Your task to perform on an android device: How much does a 3 bedroom apartment rent for in Chicago? Image 0: 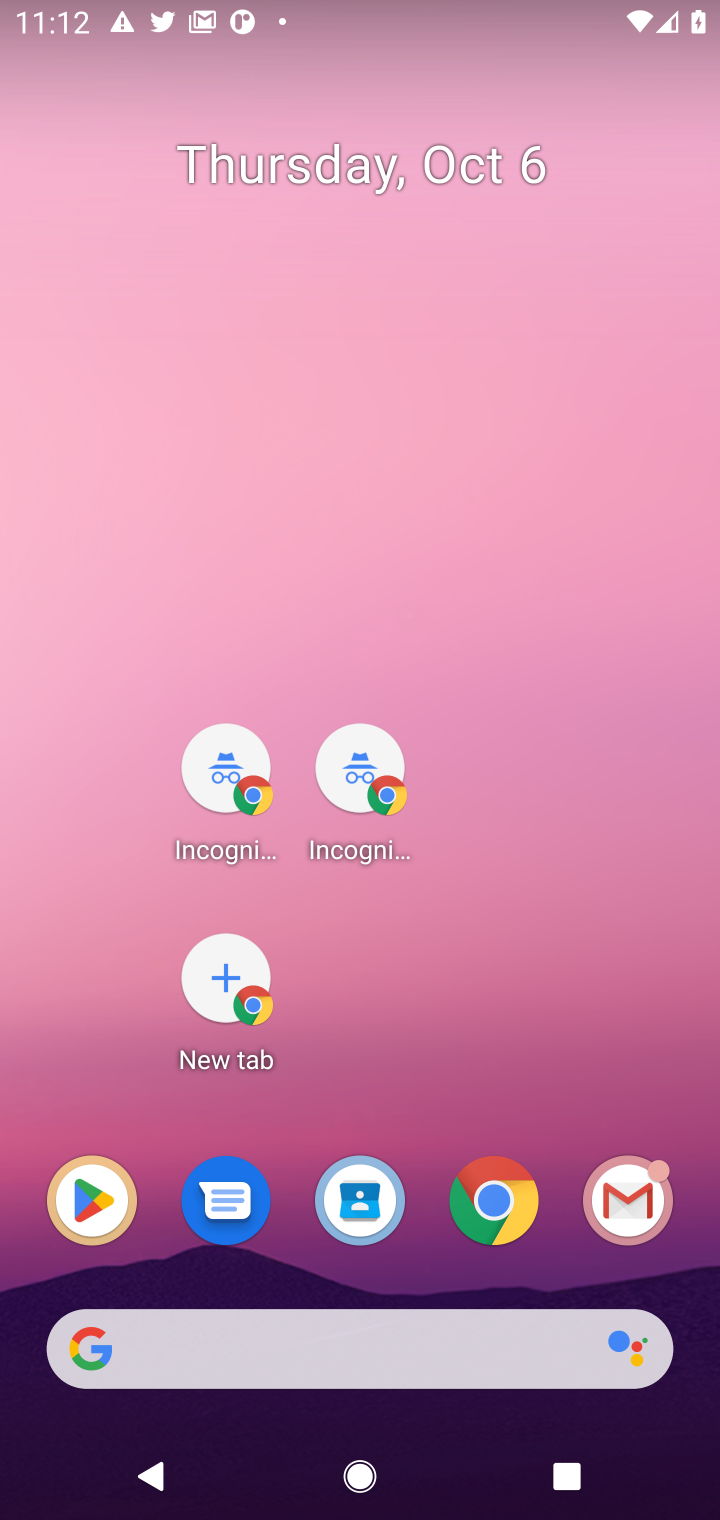
Step 0: press home button
Your task to perform on an android device: How much does a 3 bedroom apartment rent for in Chicago? Image 1: 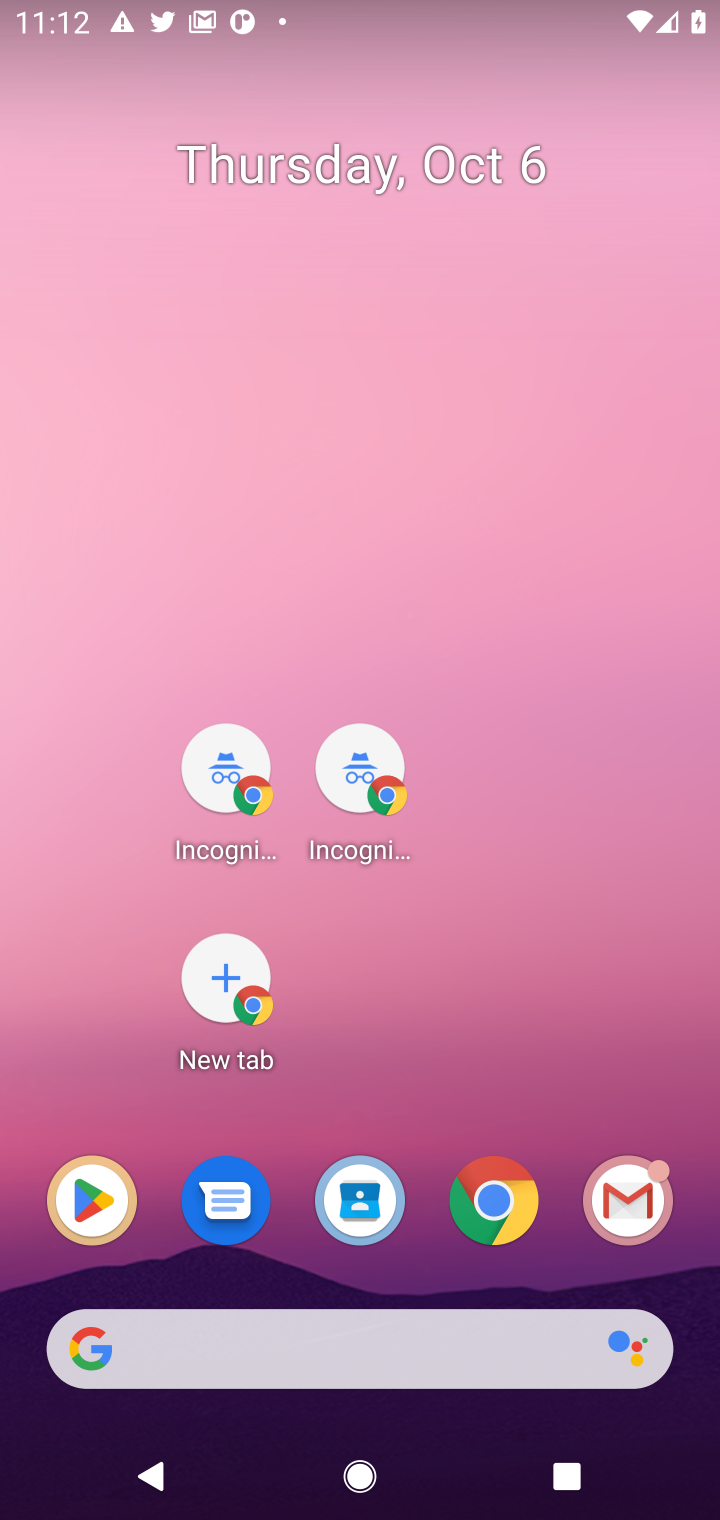
Step 1: click (502, 1193)
Your task to perform on an android device: How much does a 3 bedroom apartment rent for in Chicago? Image 2: 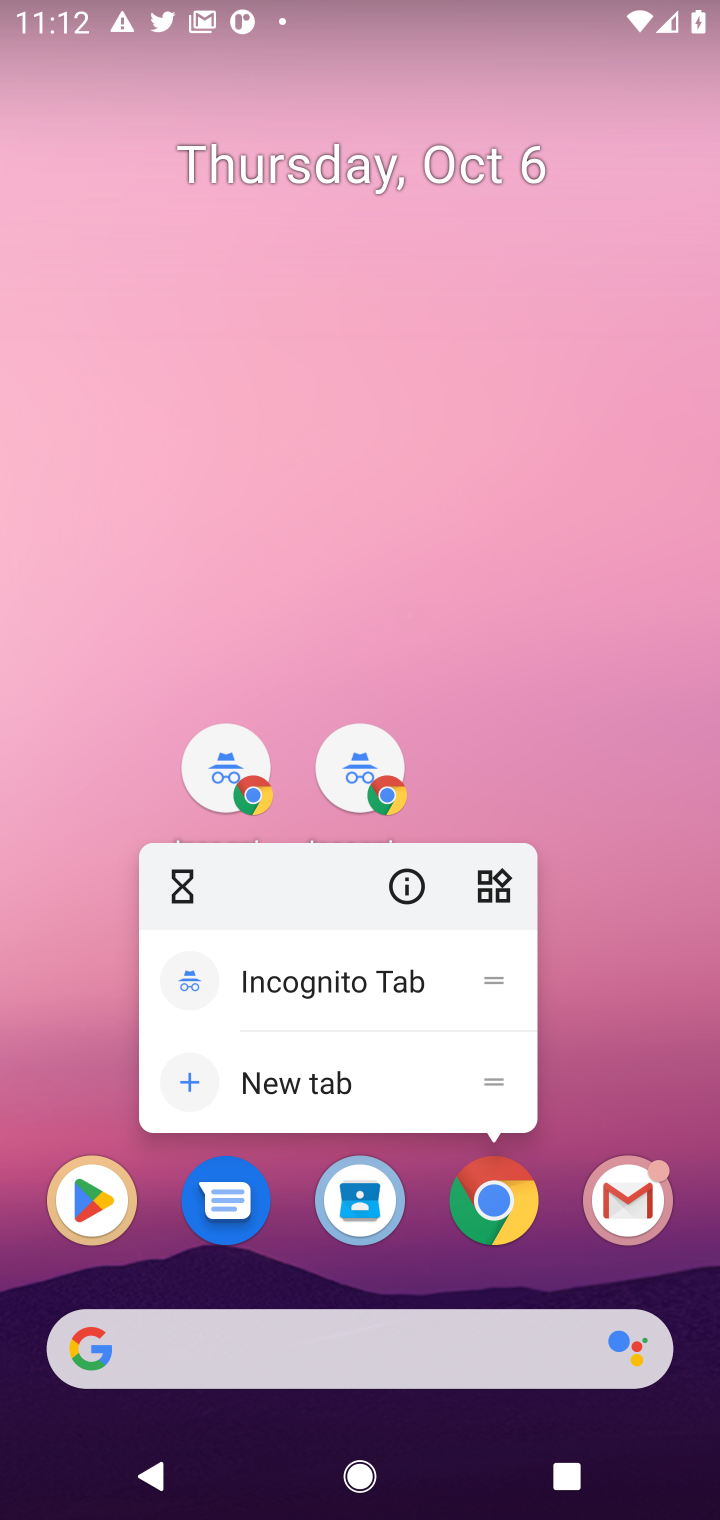
Step 2: press back button
Your task to perform on an android device: How much does a 3 bedroom apartment rent for in Chicago? Image 3: 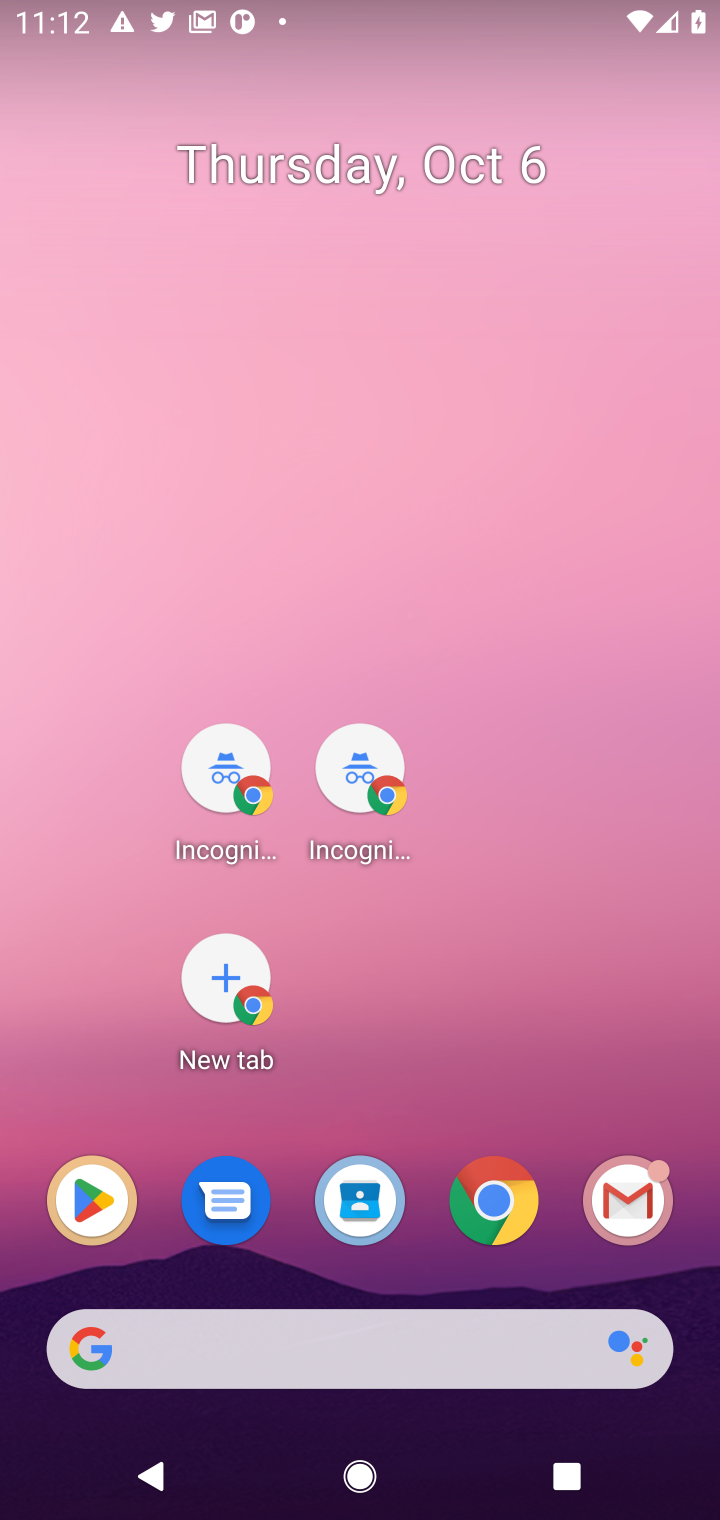
Step 3: click (484, 1201)
Your task to perform on an android device: How much does a 3 bedroom apartment rent for in Chicago? Image 4: 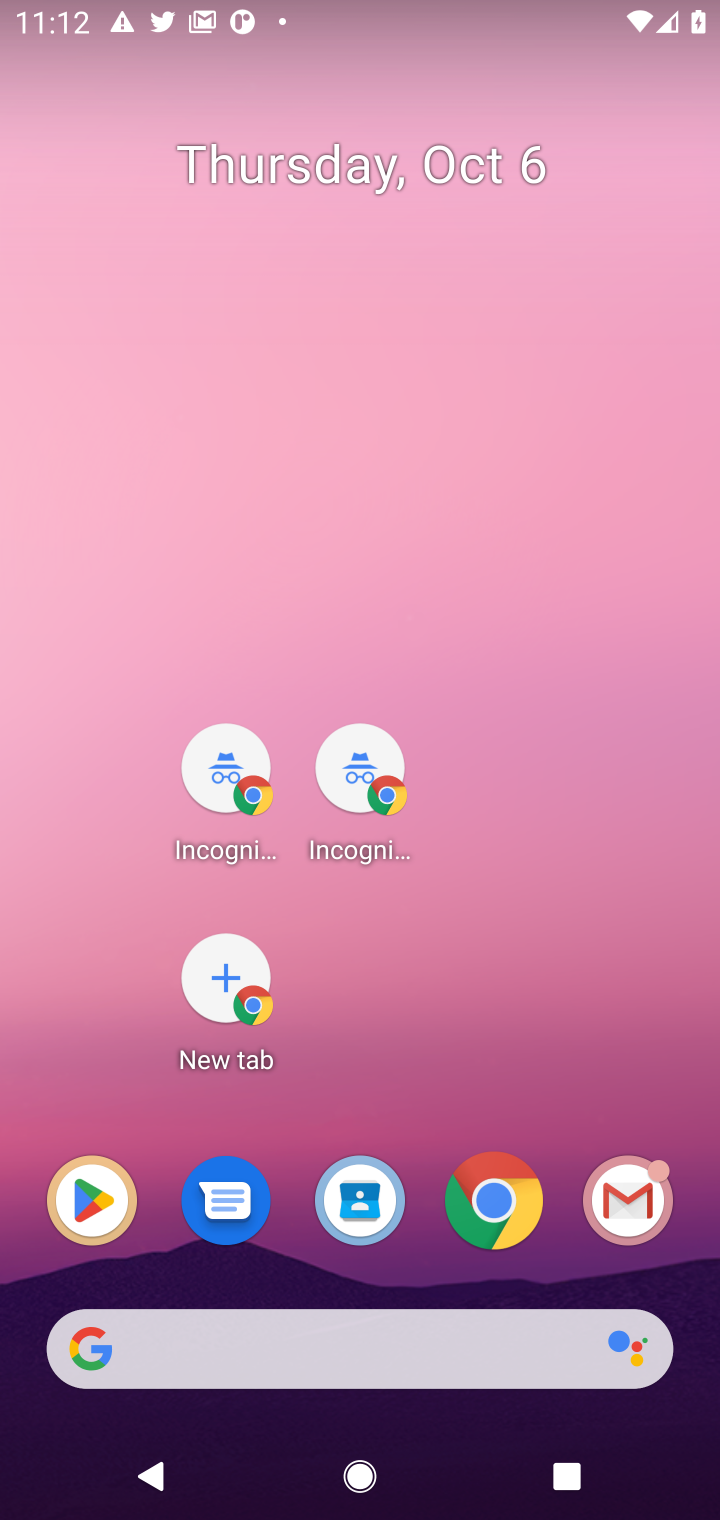
Step 4: click (486, 1197)
Your task to perform on an android device: How much does a 3 bedroom apartment rent for in Chicago? Image 5: 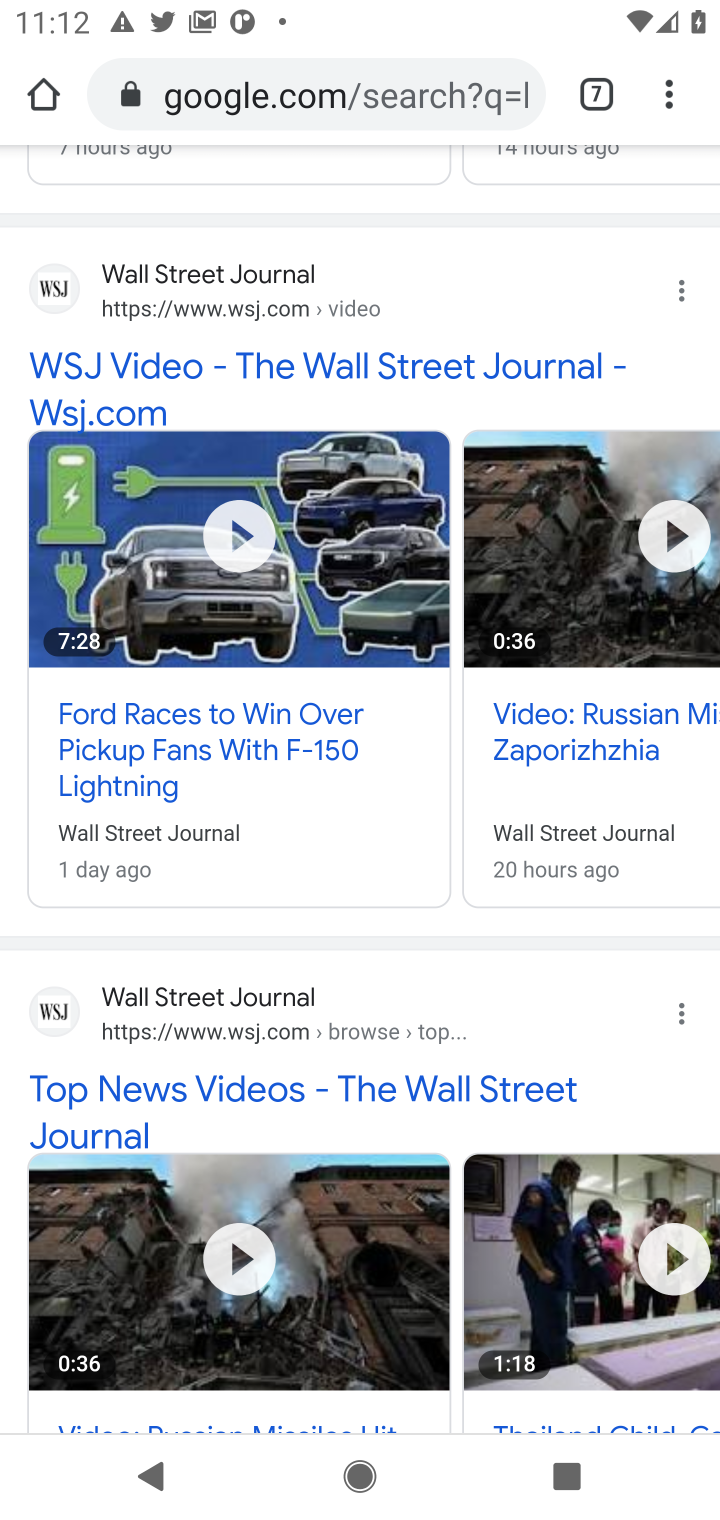
Step 5: click (335, 78)
Your task to perform on an android device: How much does a 3 bedroom apartment rent for in Chicago? Image 6: 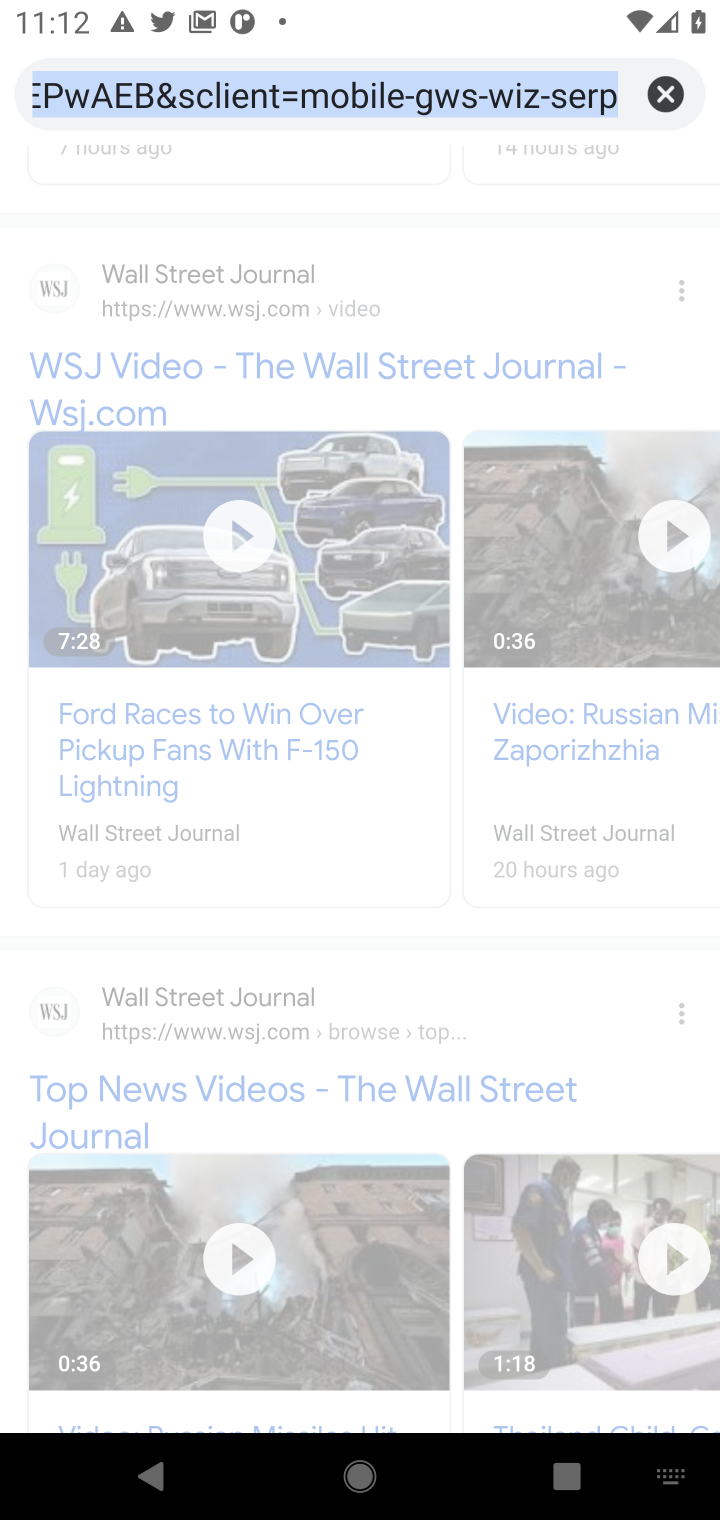
Step 6: click (667, 99)
Your task to perform on an android device: How much does a 3 bedroom apartment rent for in Chicago? Image 7: 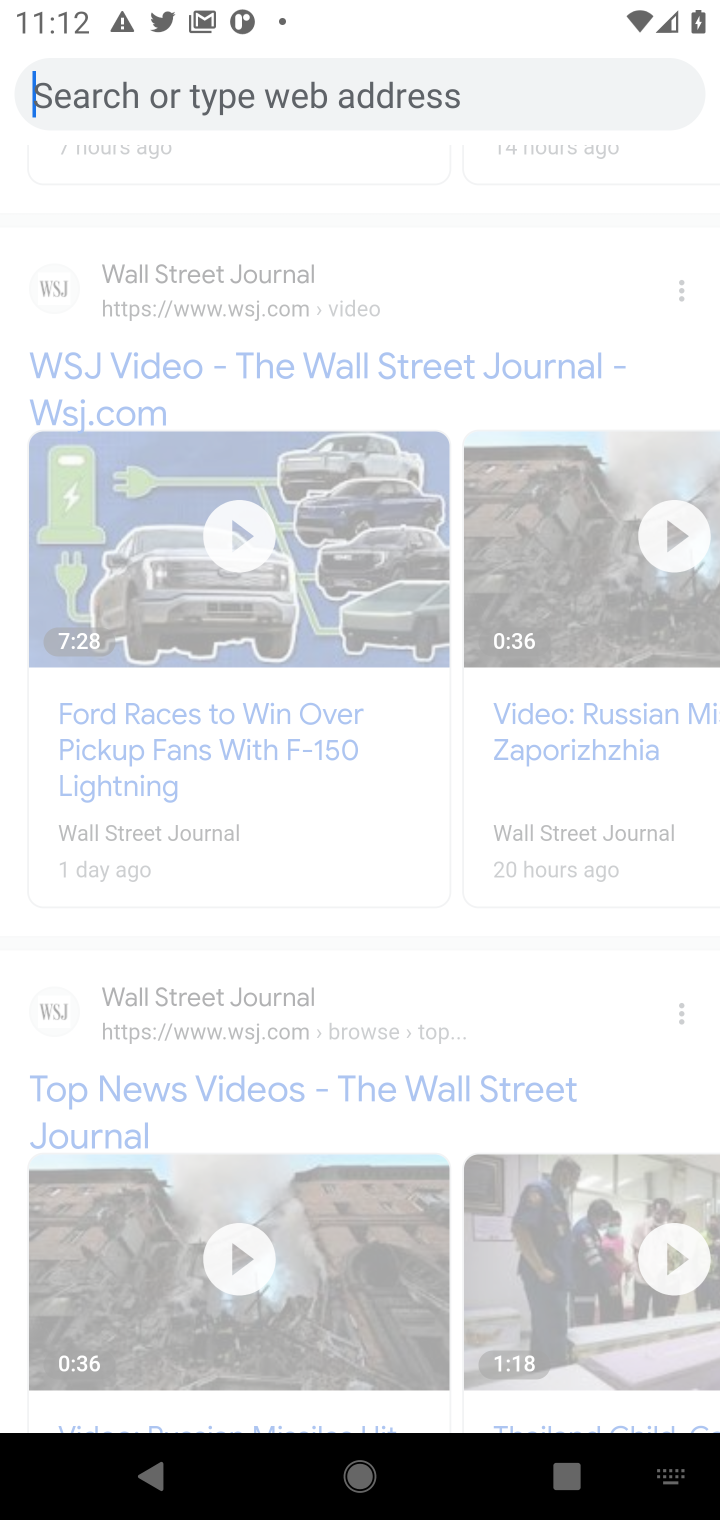
Step 7: type "3 bed room apartment rent in chicago"
Your task to perform on an android device: How much does a 3 bedroom apartment rent for in Chicago? Image 8: 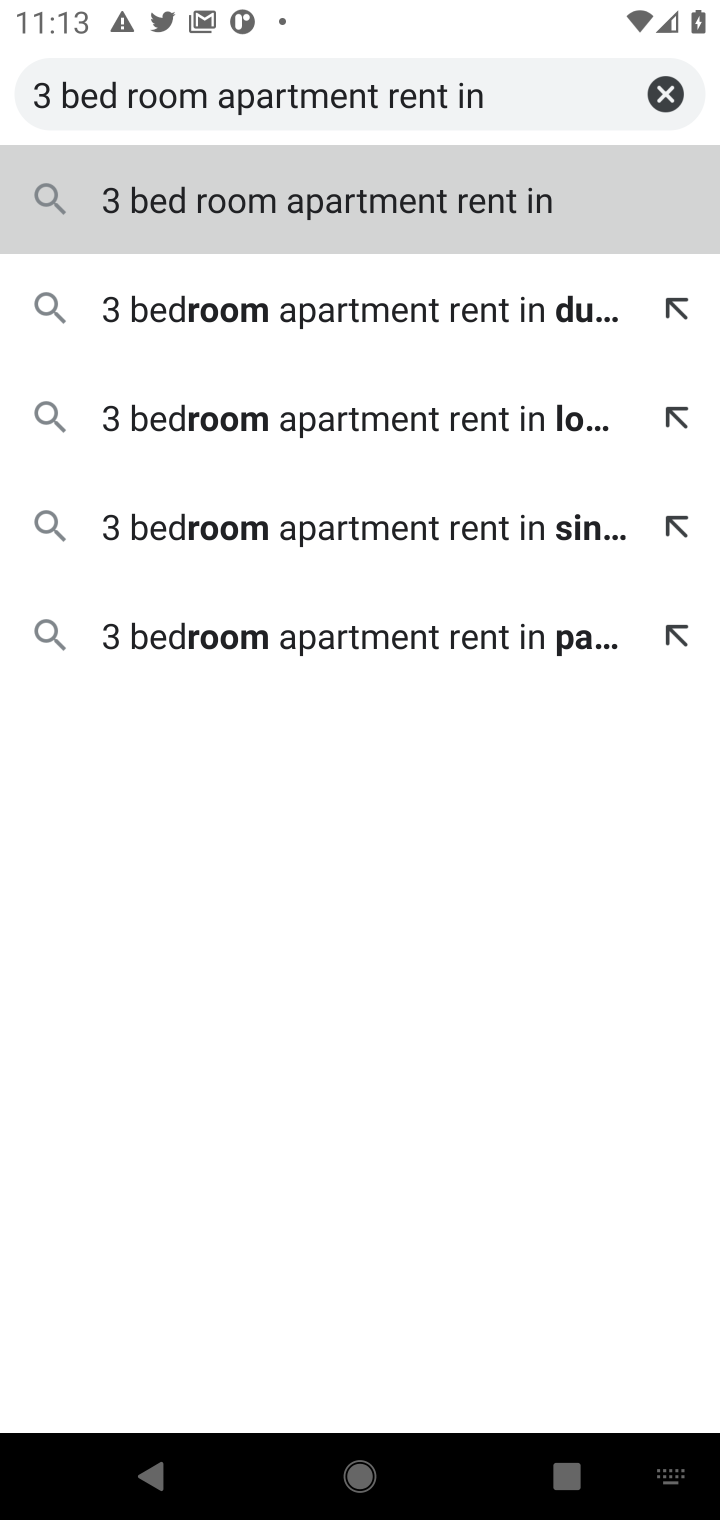
Step 8: click (344, 306)
Your task to perform on an android device: How much does a 3 bedroom apartment rent for in Chicago? Image 9: 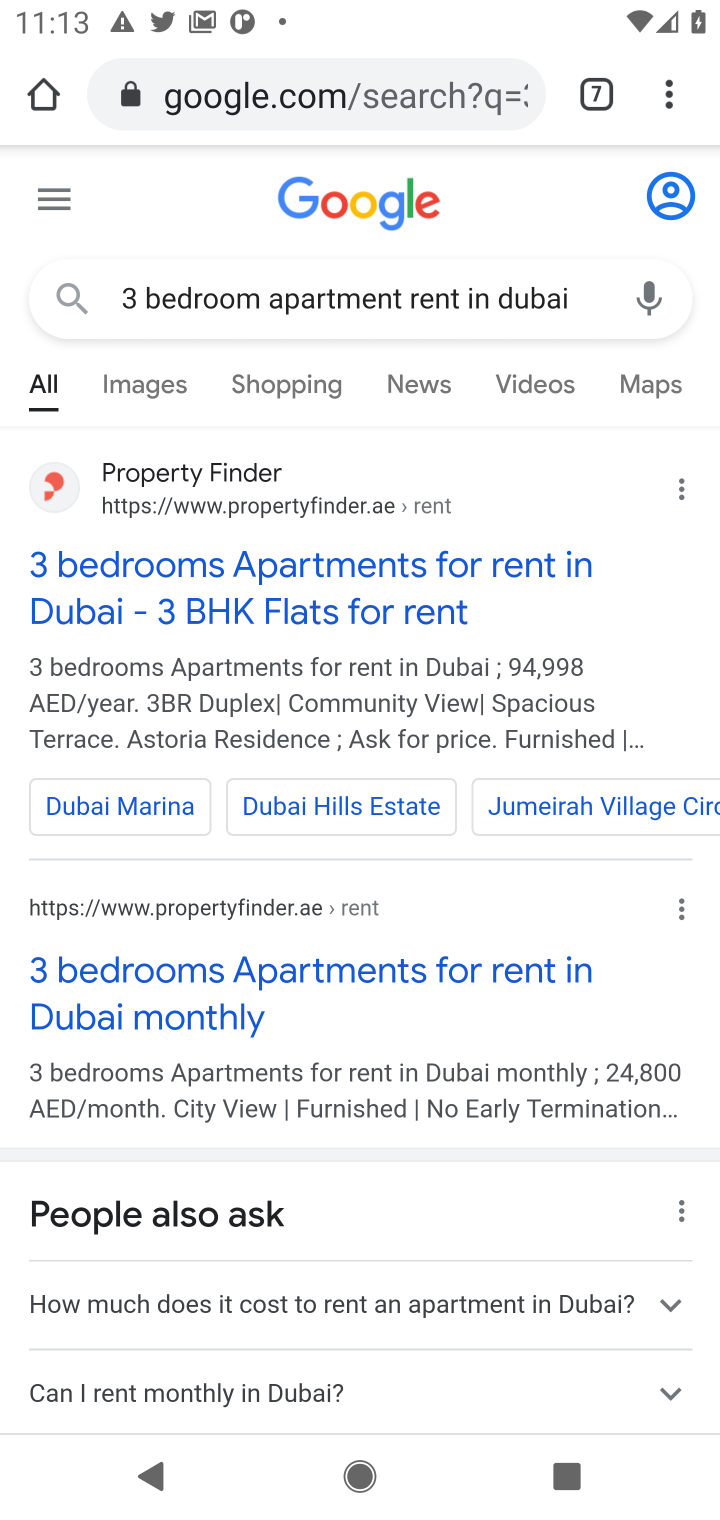
Step 9: drag from (341, 832) to (347, 516)
Your task to perform on an android device: How much does a 3 bedroom apartment rent for in Chicago? Image 10: 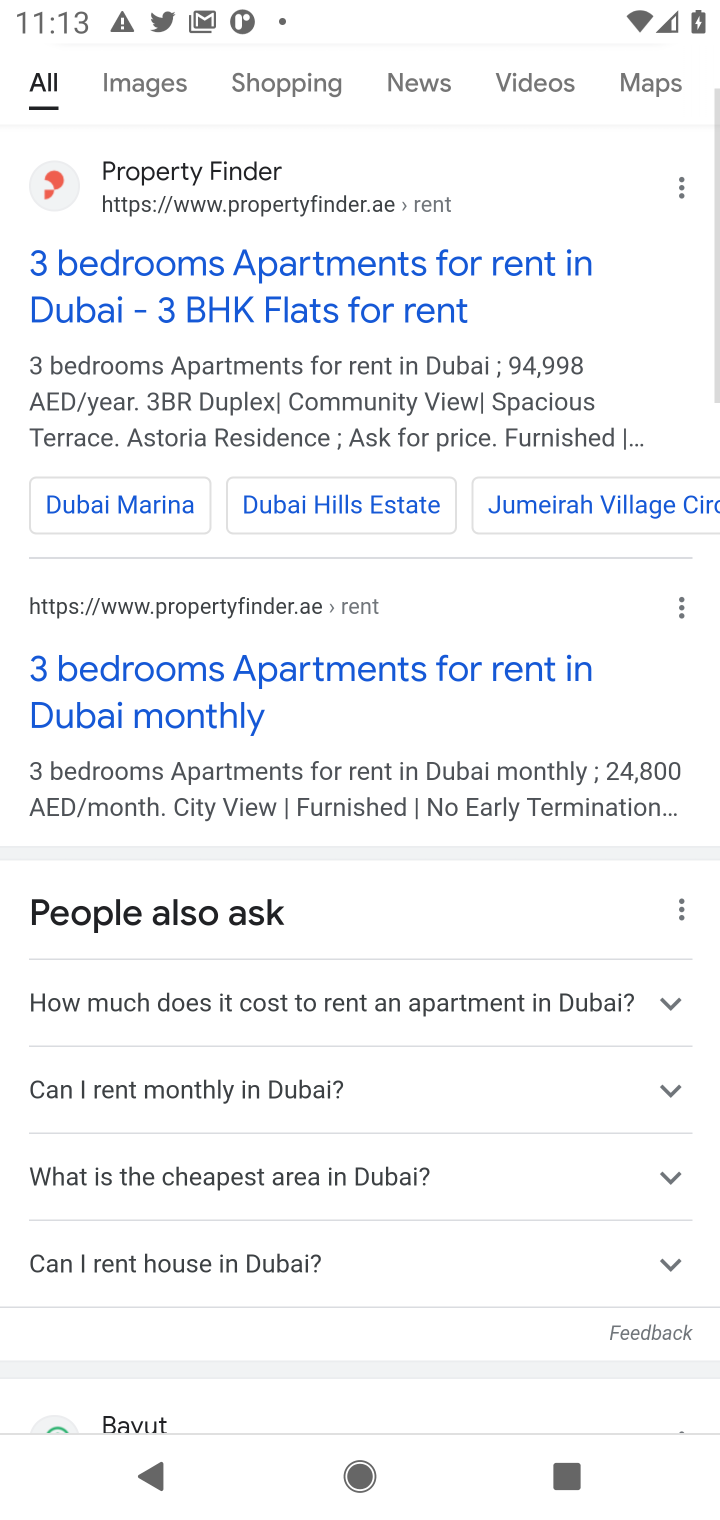
Step 10: drag from (396, 1192) to (465, 719)
Your task to perform on an android device: How much does a 3 bedroom apartment rent for in Chicago? Image 11: 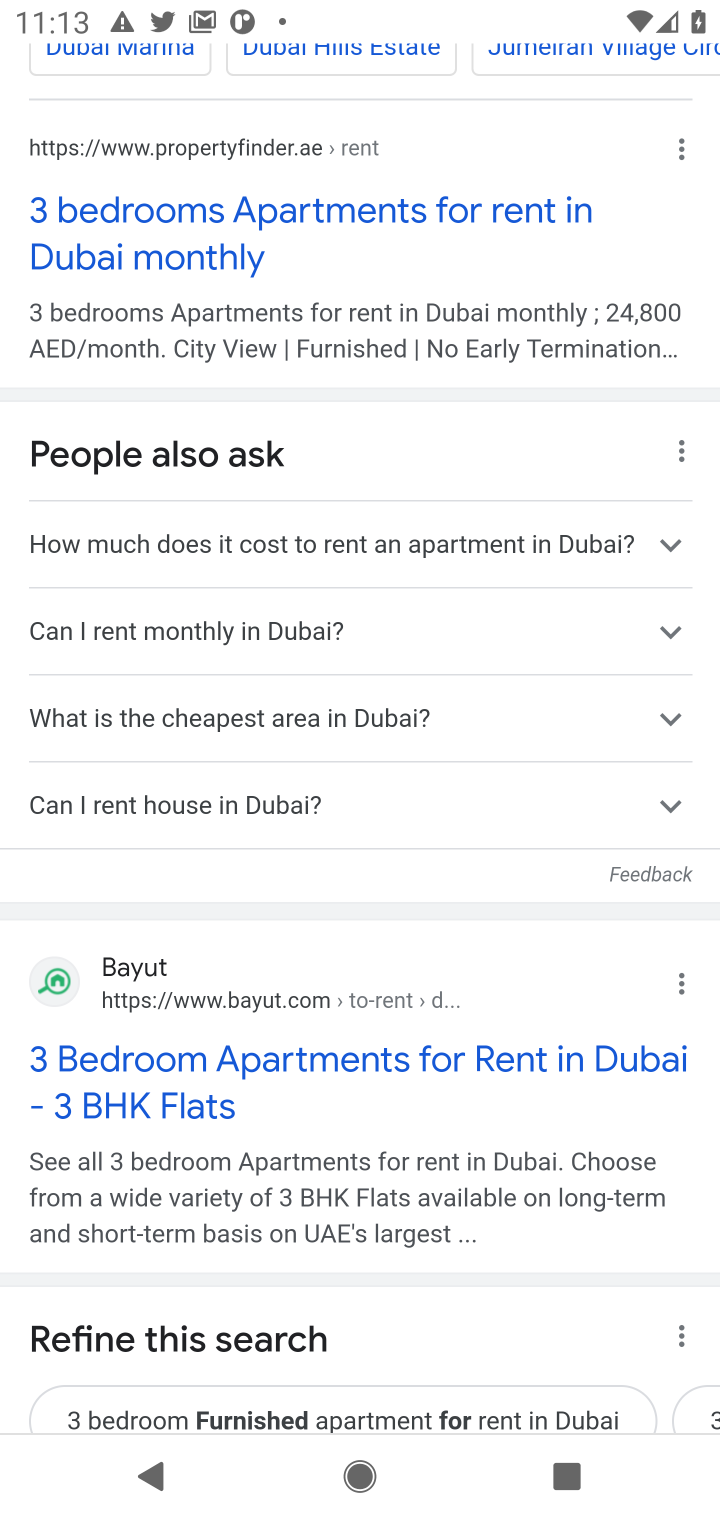
Step 11: drag from (123, 1200) to (225, 780)
Your task to perform on an android device: How much does a 3 bedroom apartment rent for in Chicago? Image 12: 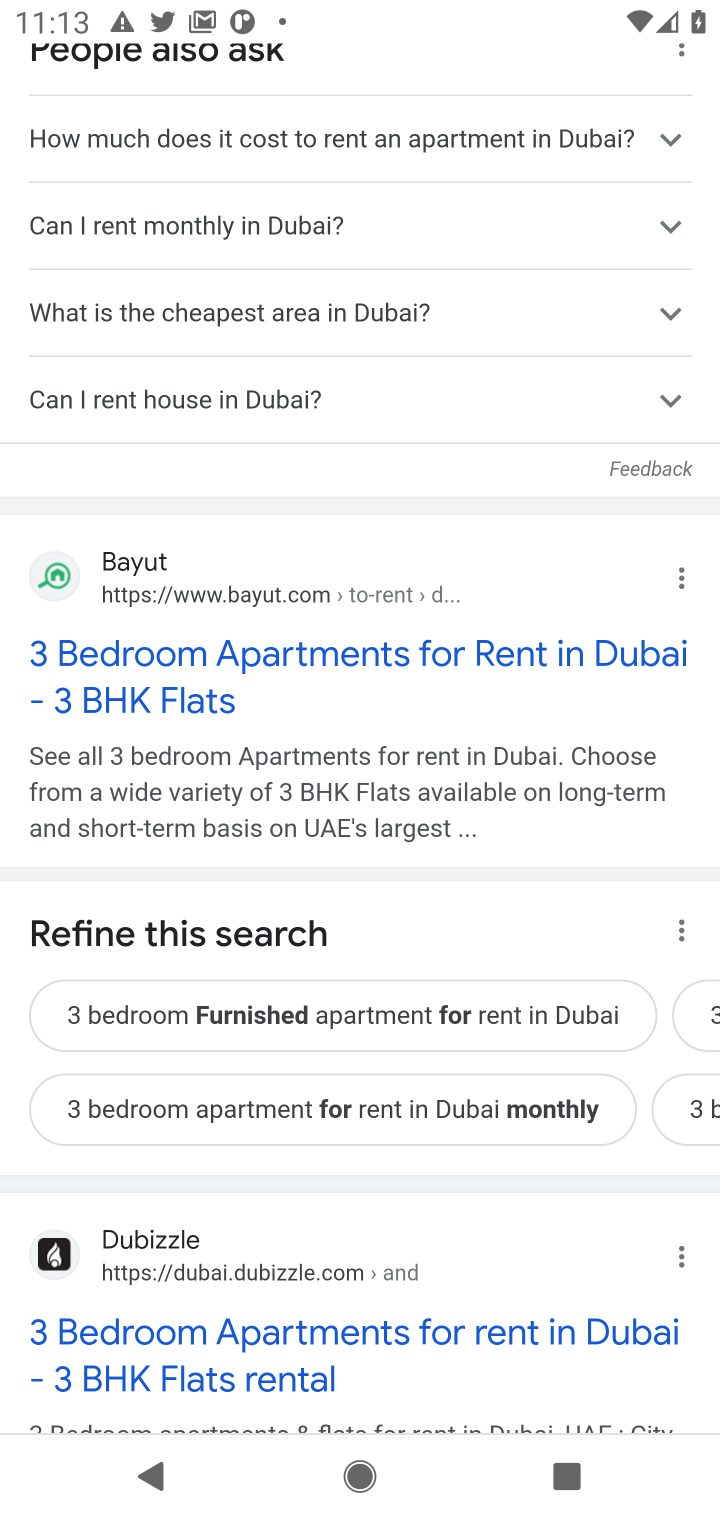
Step 12: drag from (311, 318) to (412, 1333)
Your task to perform on an android device: How much does a 3 bedroom apartment rent for in Chicago? Image 13: 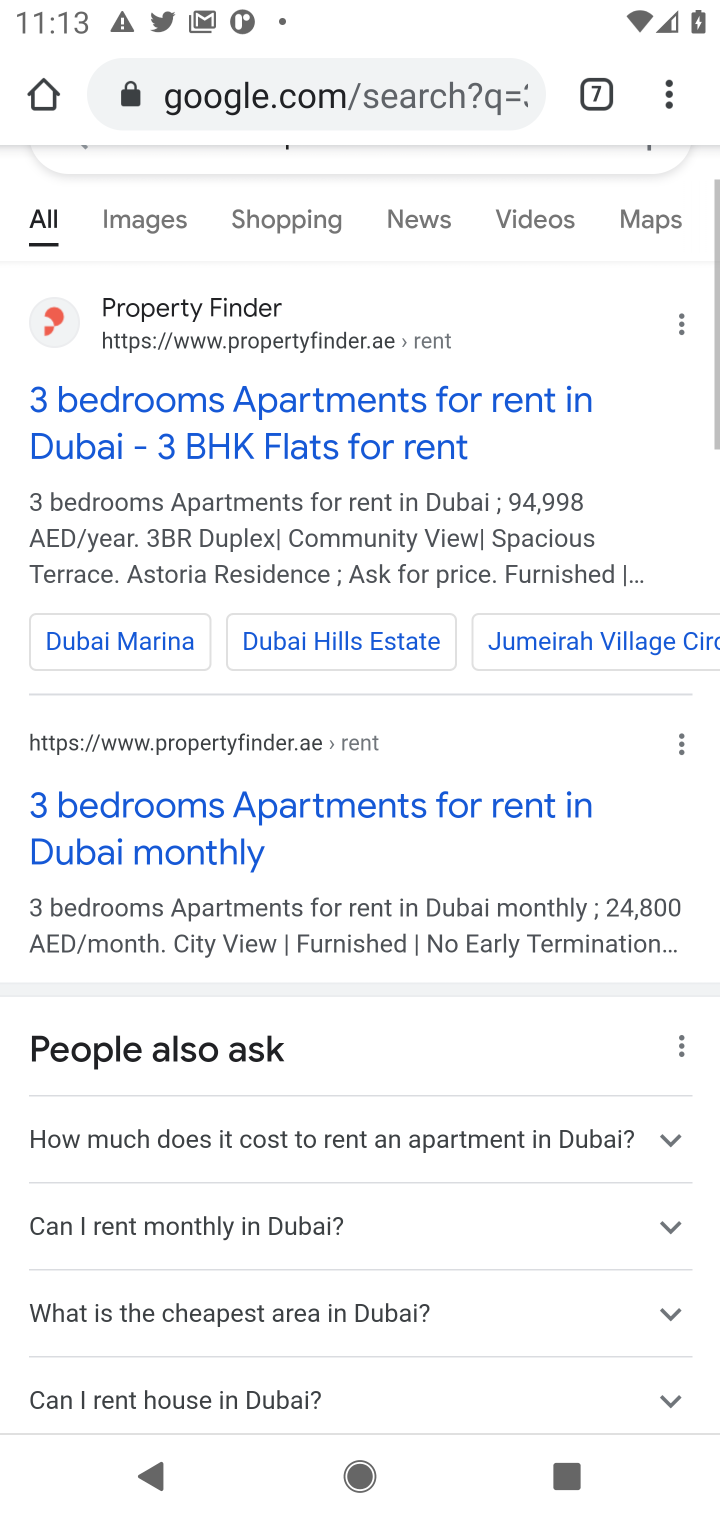
Step 13: drag from (331, 768) to (315, 1500)
Your task to perform on an android device: How much does a 3 bedroom apartment rent for in Chicago? Image 14: 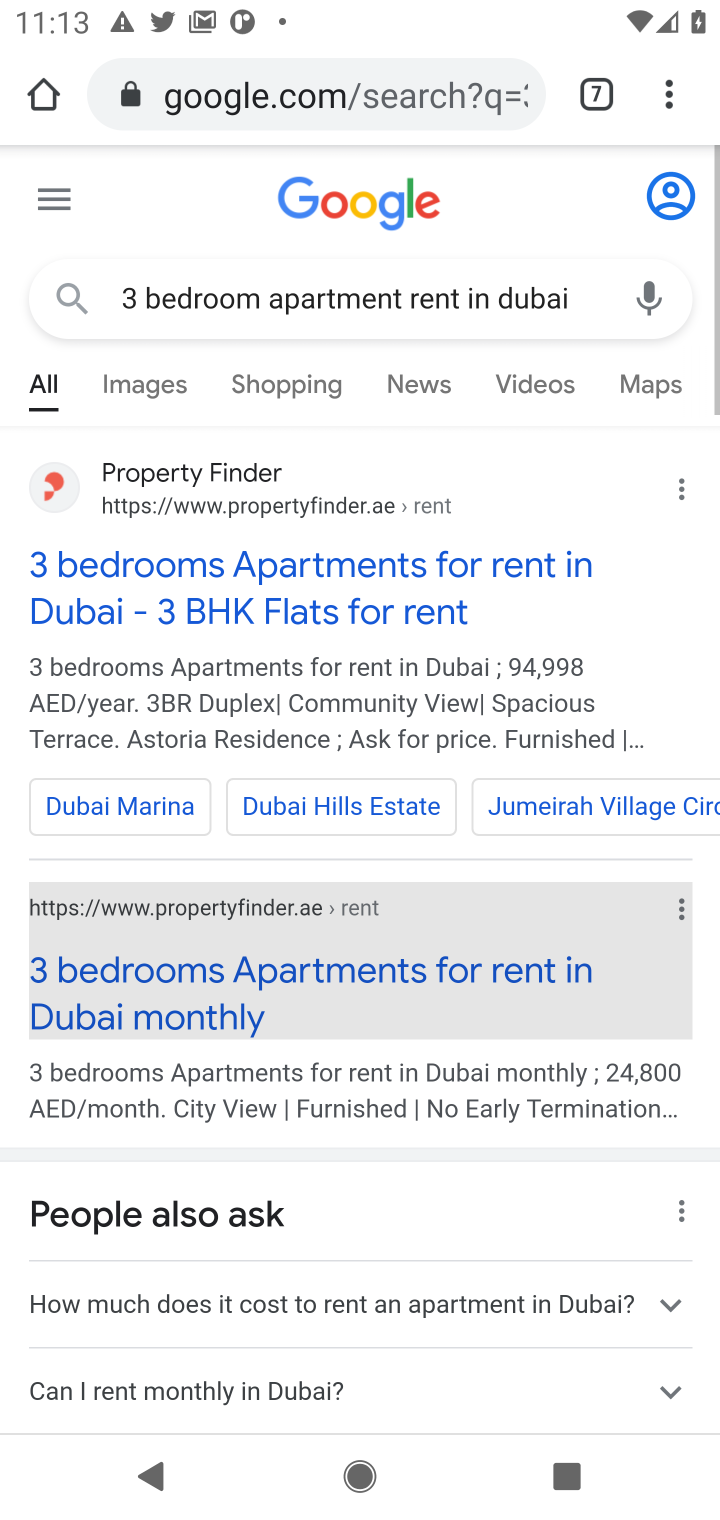
Step 14: drag from (267, 439) to (253, 1387)
Your task to perform on an android device: How much does a 3 bedroom apartment rent for in Chicago? Image 15: 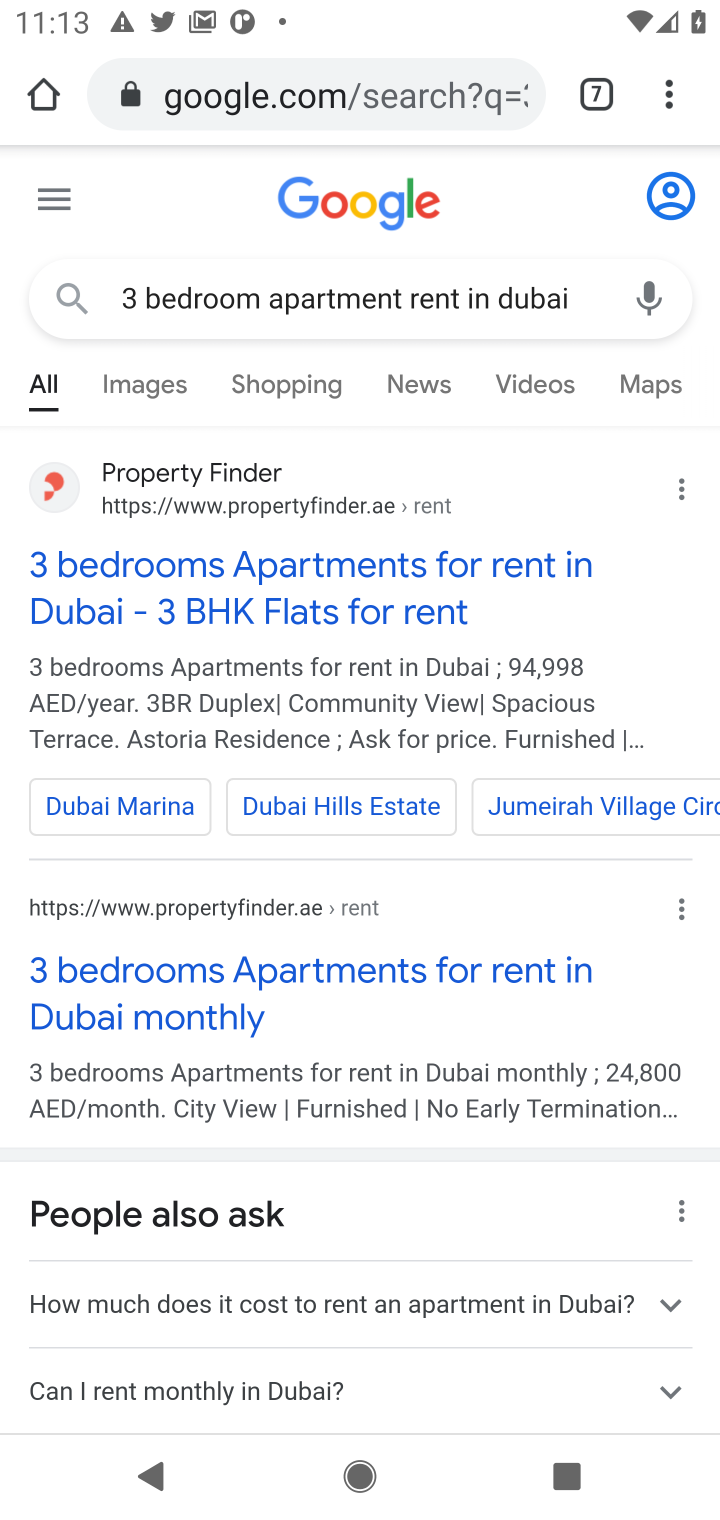
Step 15: click (577, 293)
Your task to perform on an android device: How much does a 3 bedroom apartment rent for in Chicago? Image 16: 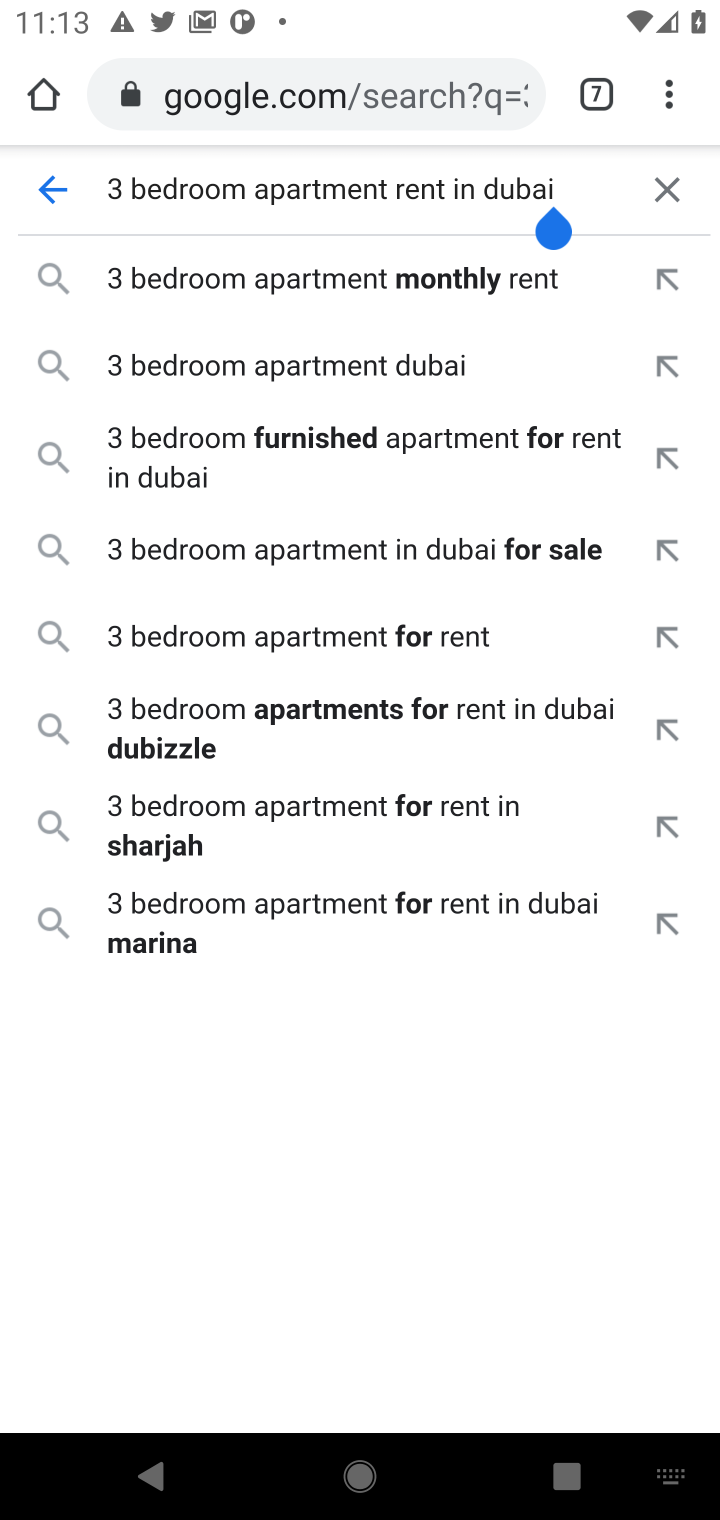
Step 16: click (572, 182)
Your task to perform on an android device: How much does a 3 bedroom apartment rent for in Chicago? Image 17: 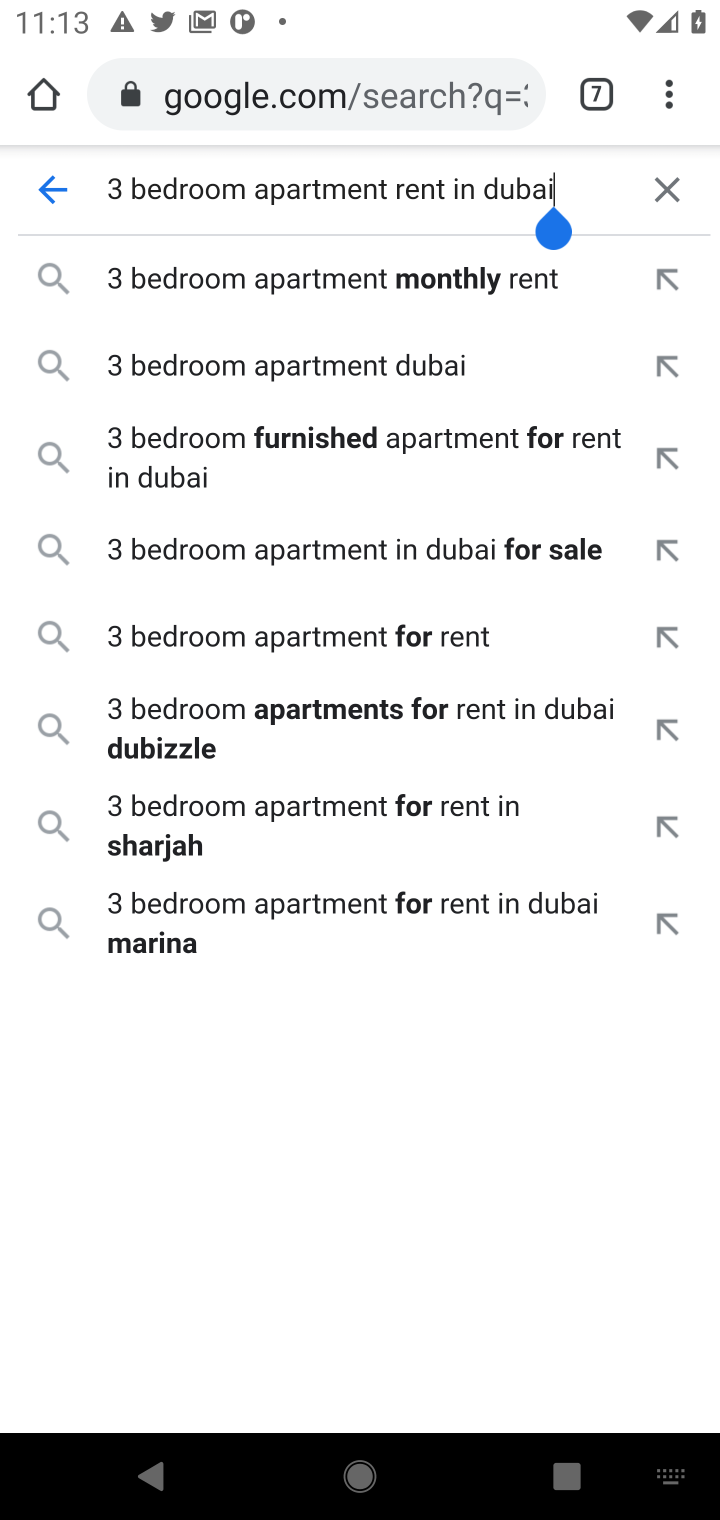
Step 17: click (658, 190)
Your task to perform on an android device: How much does a 3 bedroom apartment rent for in Chicago? Image 18: 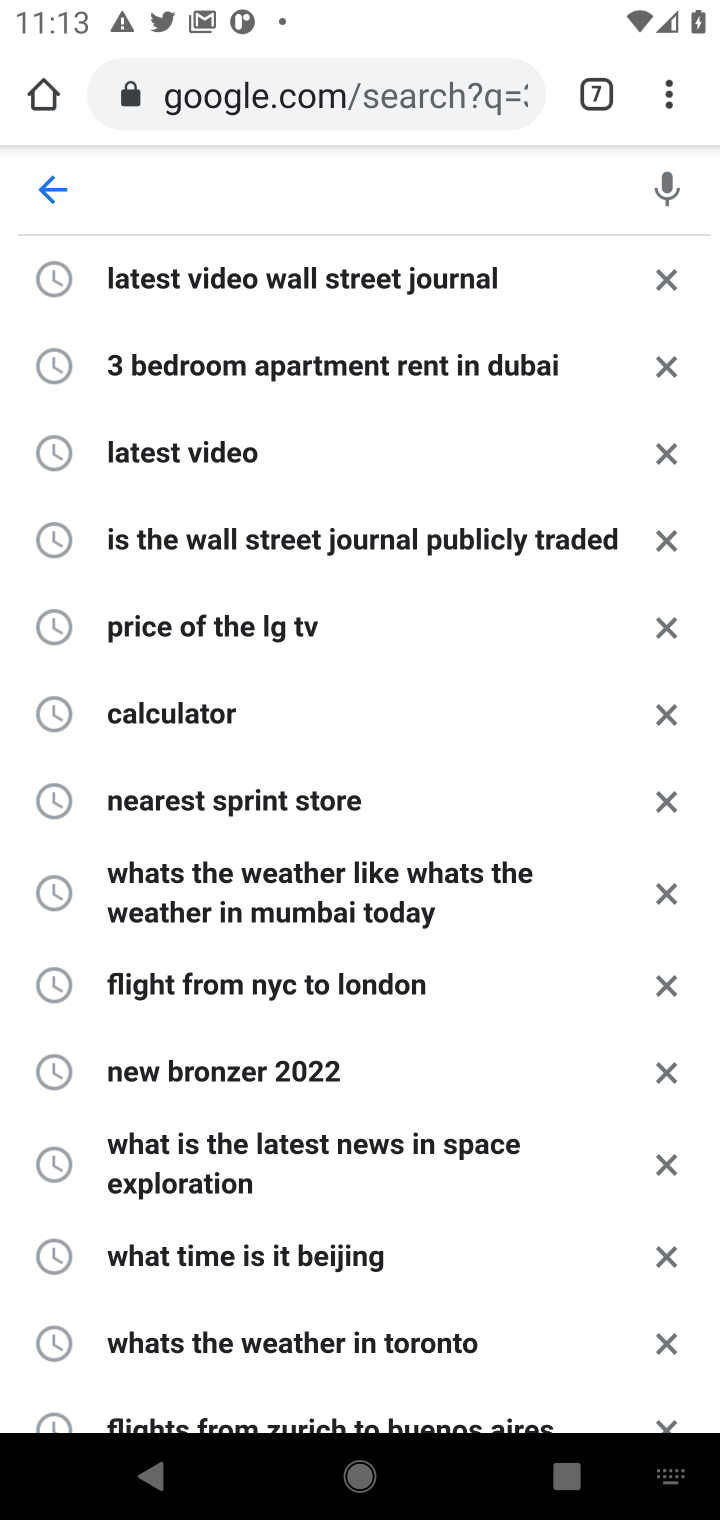
Step 18: type "3 bed room apartment rent for chicago"
Your task to perform on an android device: How much does a 3 bedroom apartment rent for in Chicago? Image 19: 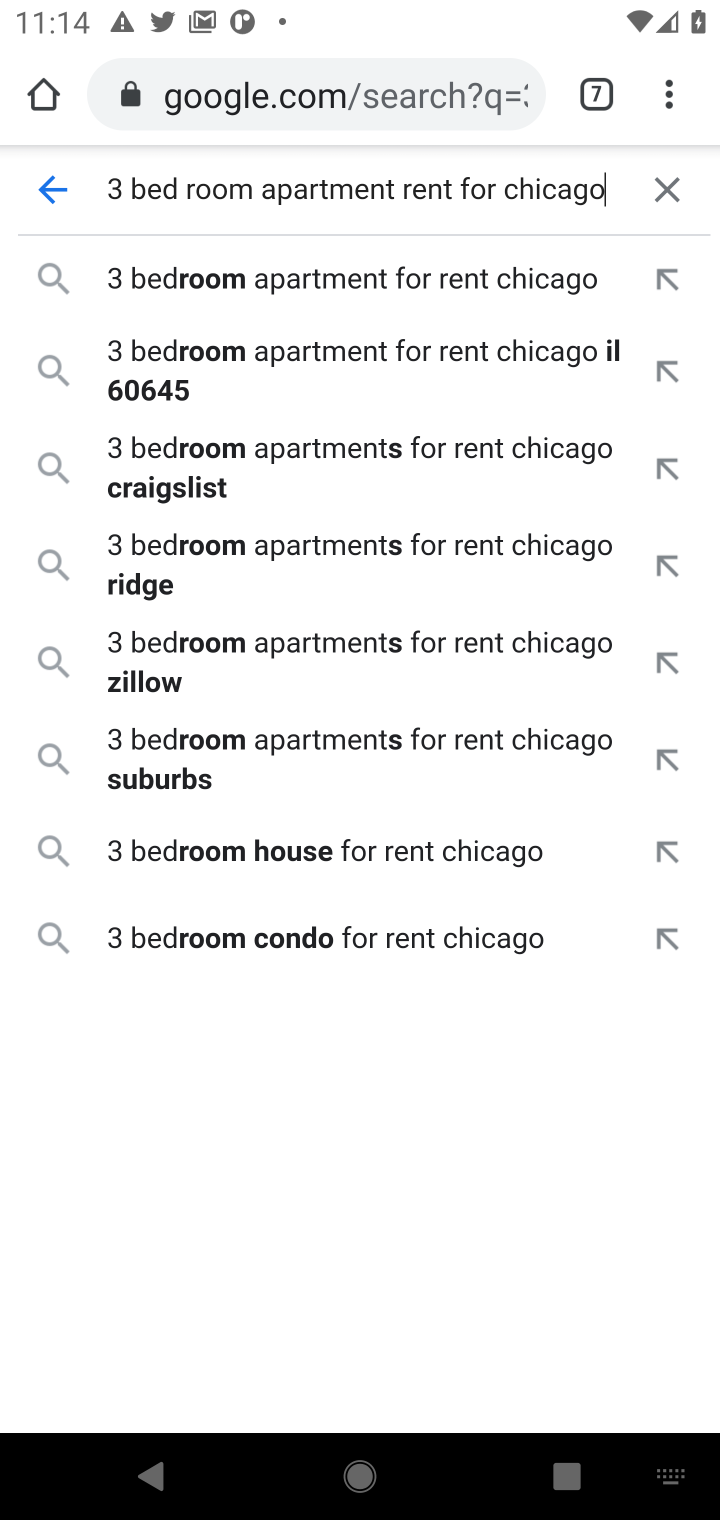
Step 19: type ""
Your task to perform on an android device: How much does a 3 bedroom apartment rent for in Chicago? Image 20: 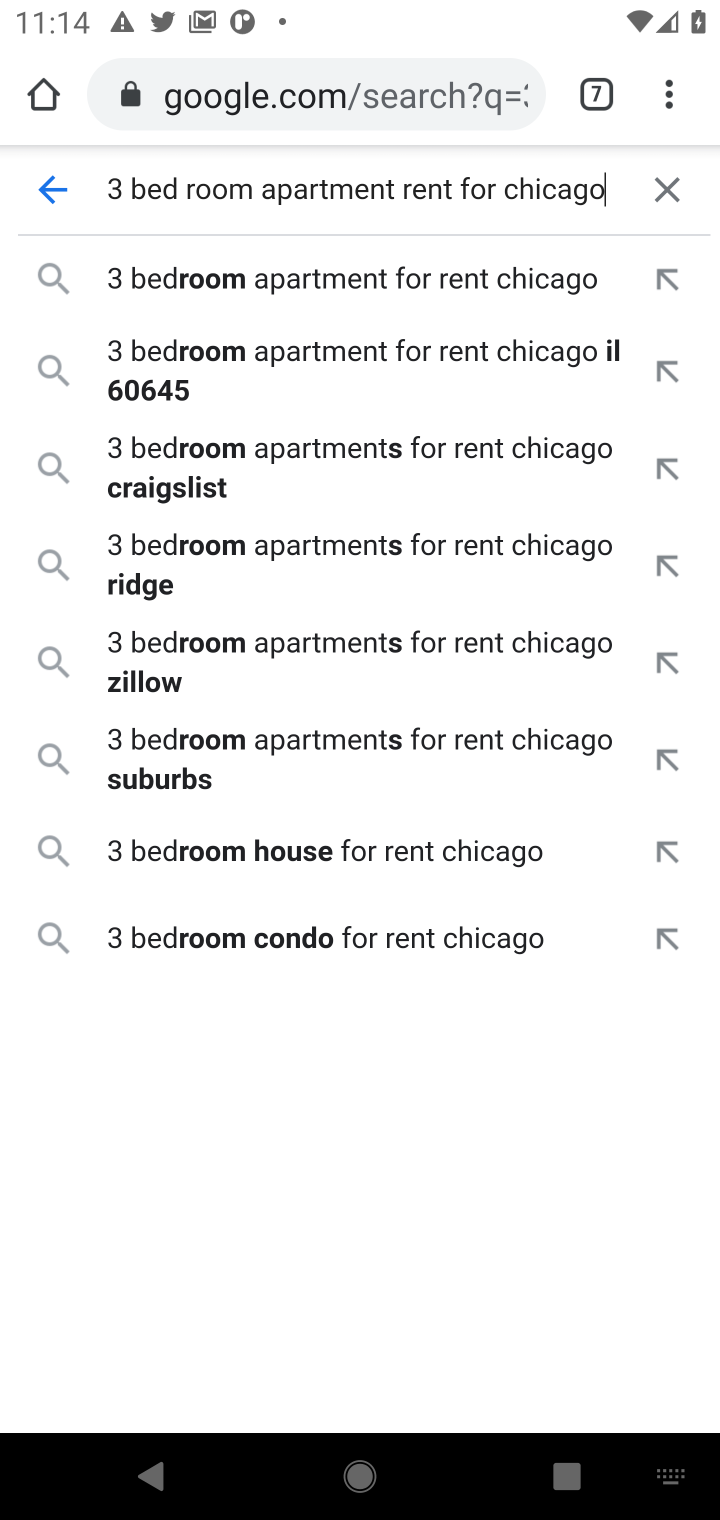
Step 20: click (179, 393)
Your task to perform on an android device: How much does a 3 bedroom apartment rent for in Chicago? Image 21: 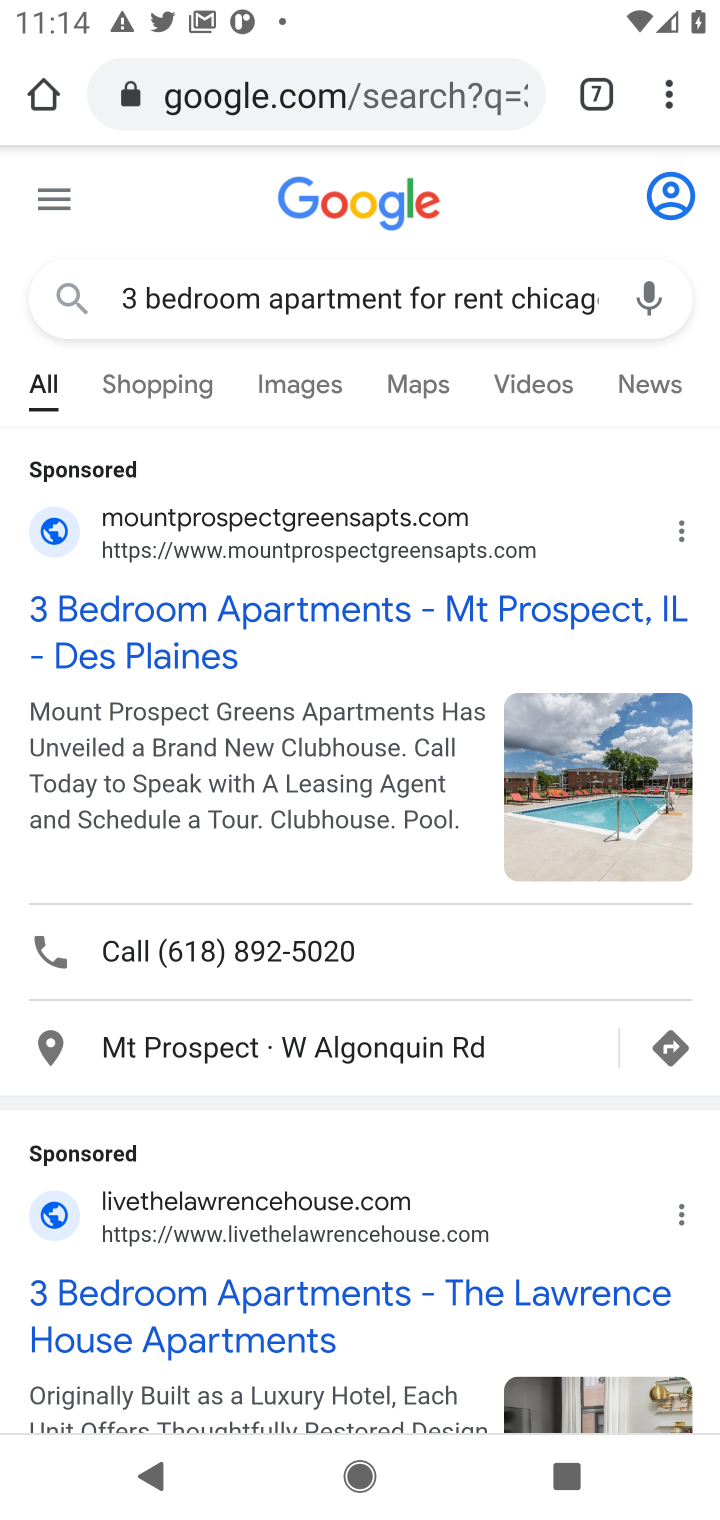
Step 21: drag from (305, 1275) to (310, 600)
Your task to perform on an android device: How much does a 3 bedroom apartment rent for in Chicago? Image 22: 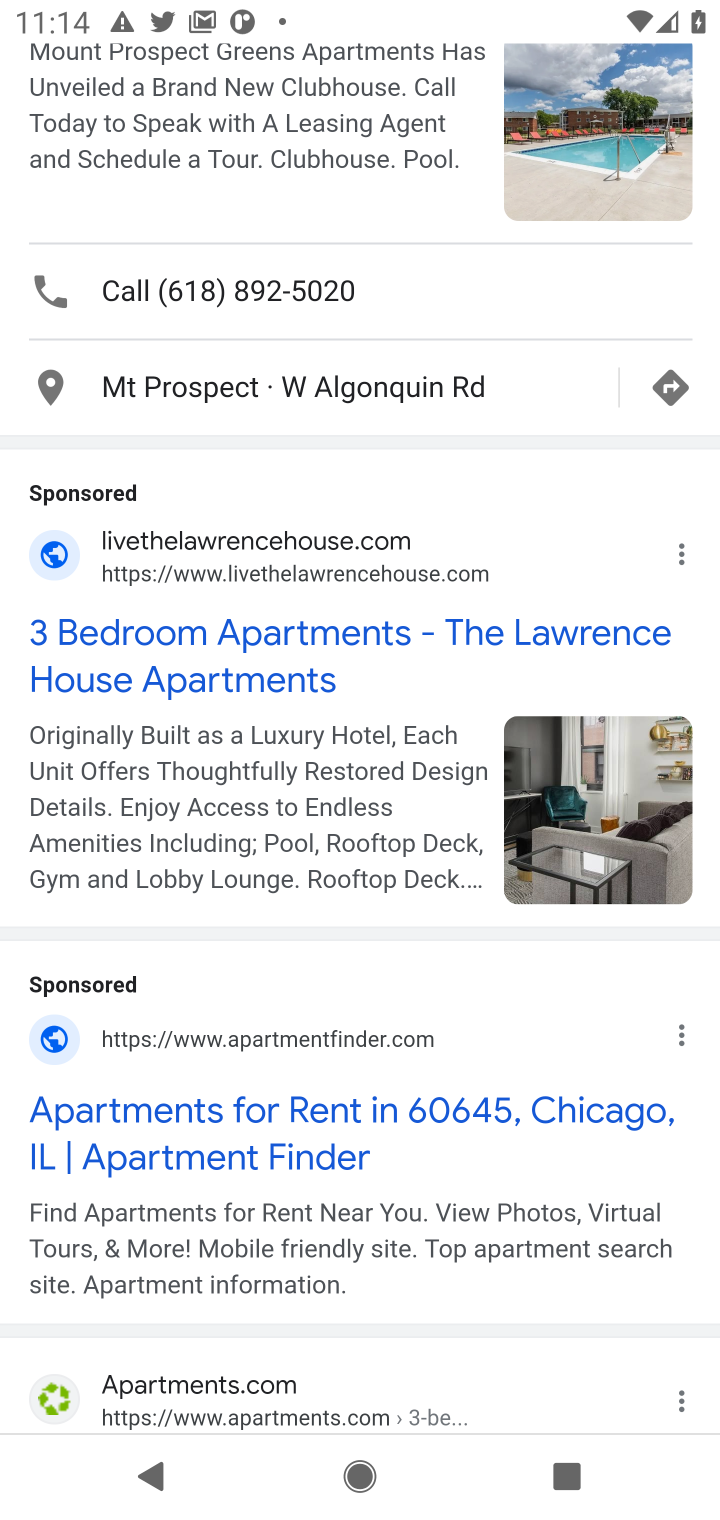
Step 22: click (138, 1112)
Your task to perform on an android device: How much does a 3 bedroom apartment rent for in Chicago? Image 23: 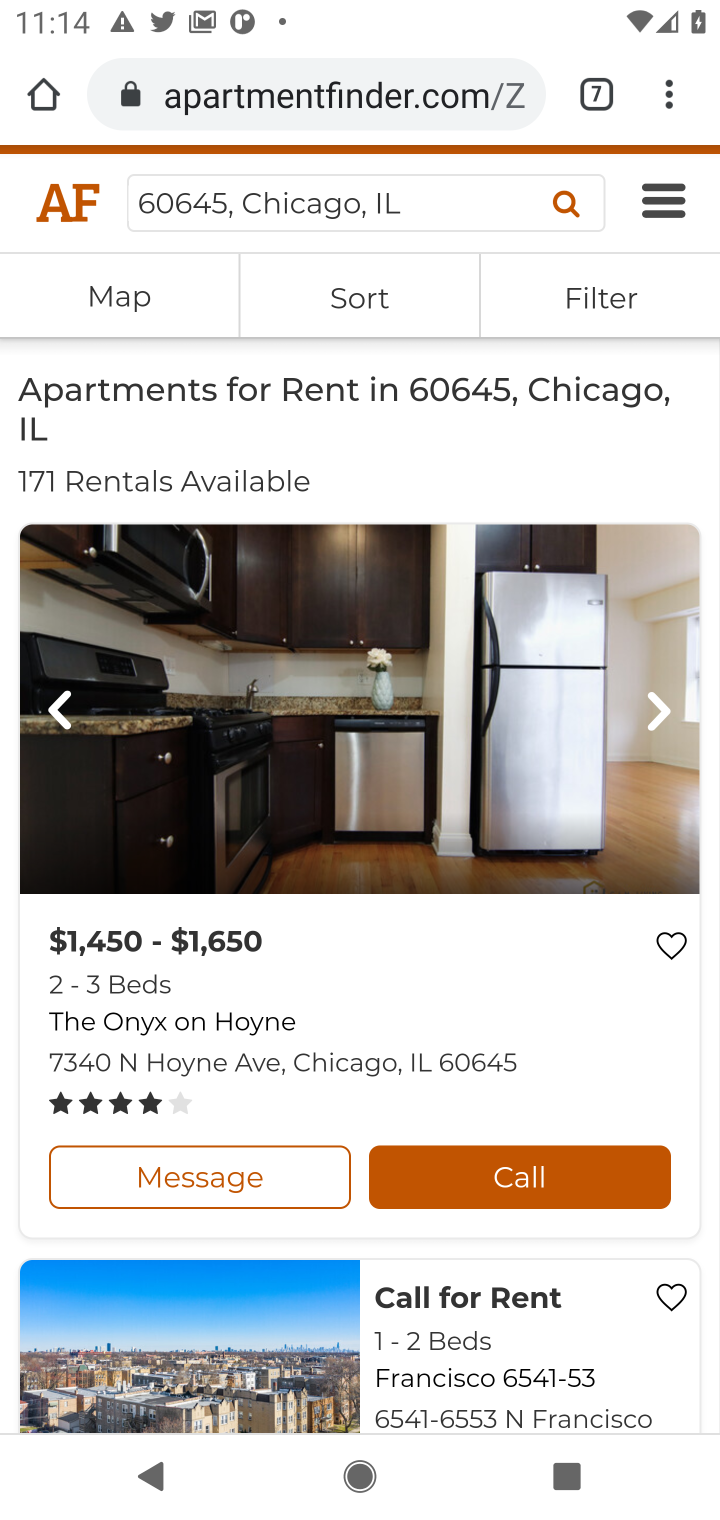
Step 23: task complete